Your task to perform on an android device: Do I have any events today? Image 0: 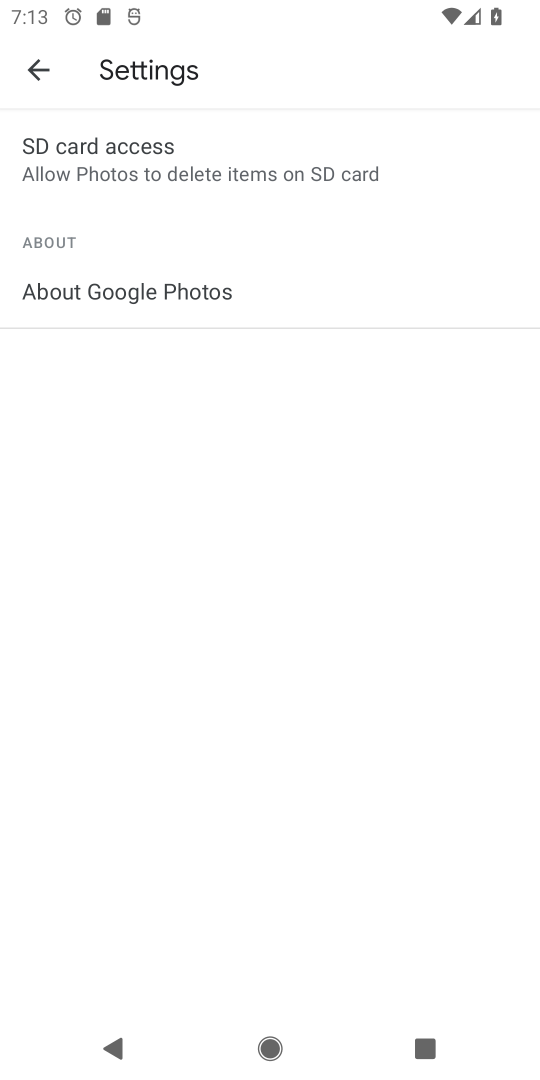
Step 0: press home button
Your task to perform on an android device: Do I have any events today? Image 1: 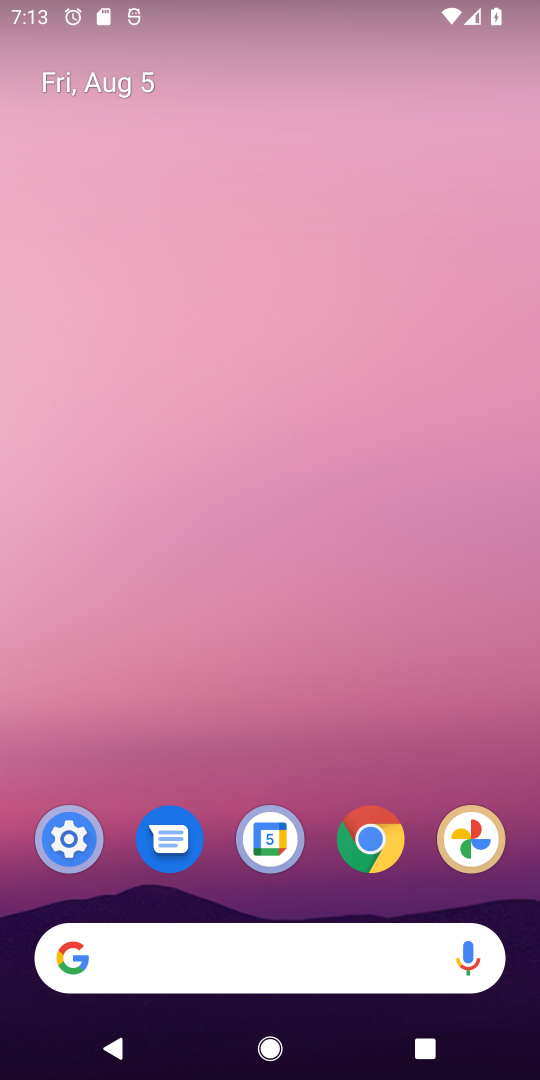
Step 1: drag from (264, 745) to (213, 231)
Your task to perform on an android device: Do I have any events today? Image 2: 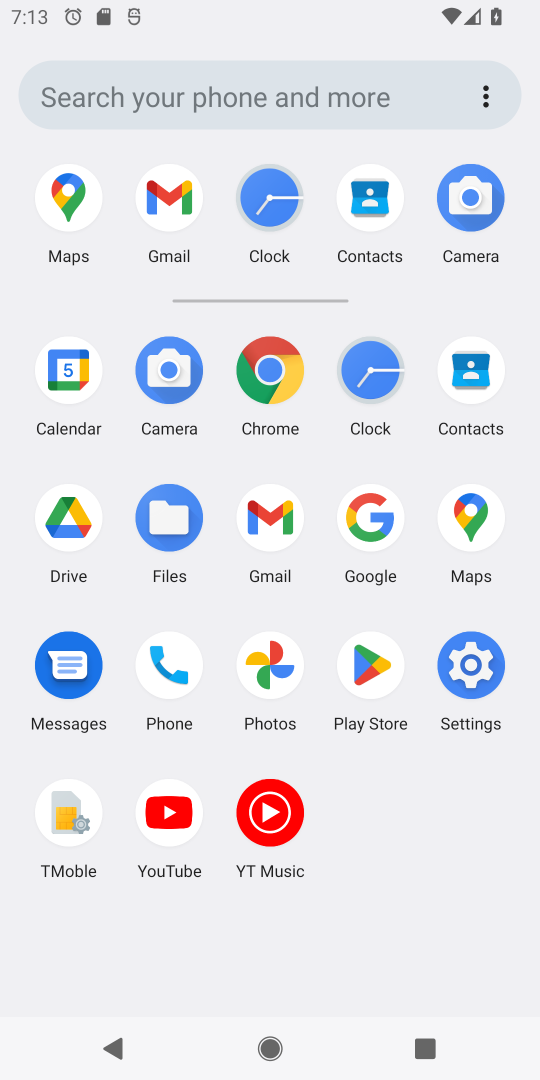
Step 2: click (79, 395)
Your task to perform on an android device: Do I have any events today? Image 3: 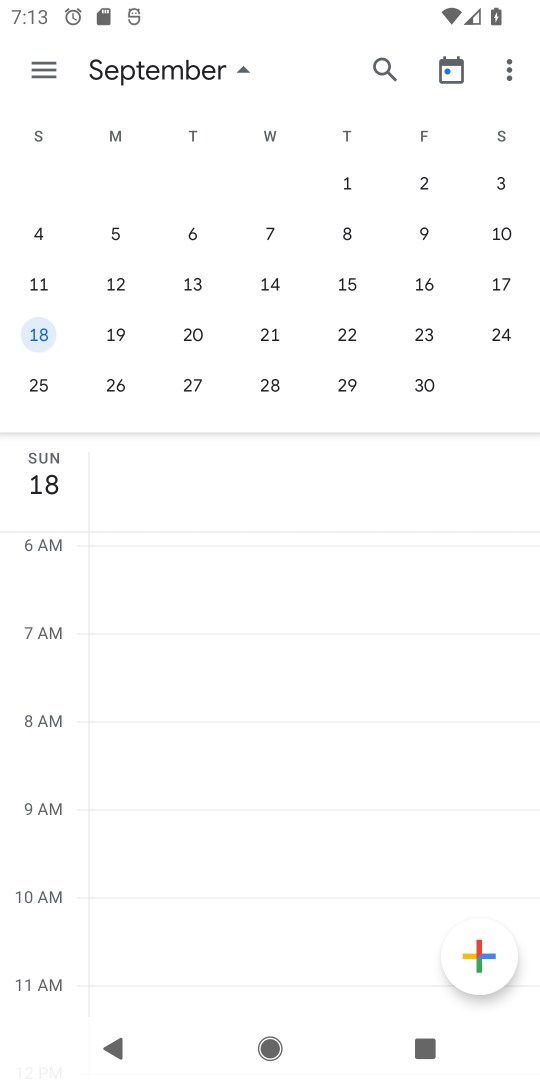
Step 3: drag from (75, 260) to (510, 270)
Your task to perform on an android device: Do I have any events today? Image 4: 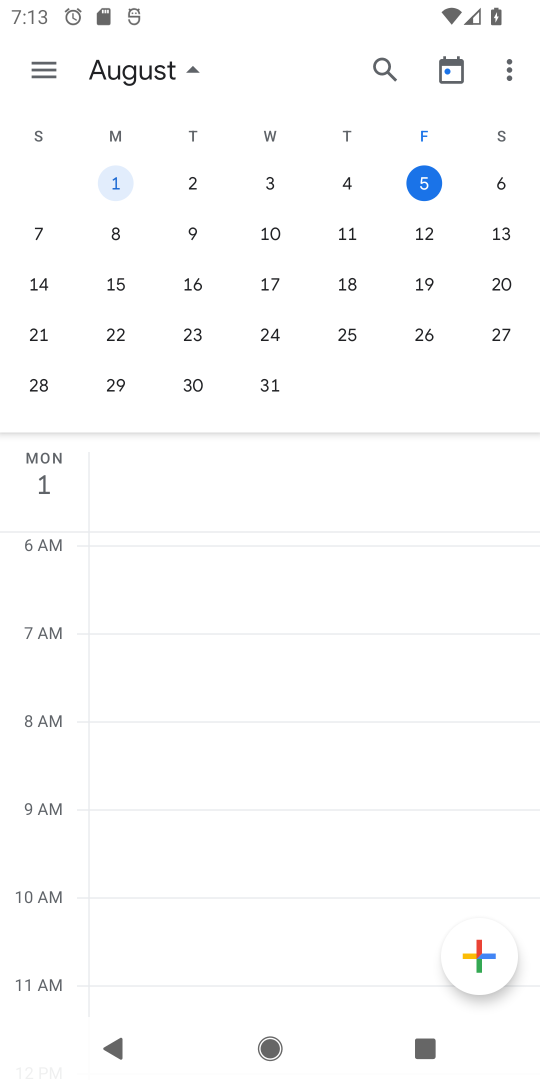
Step 4: click (437, 179)
Your task to perform on an android device: Do I have any events today? Image 5: 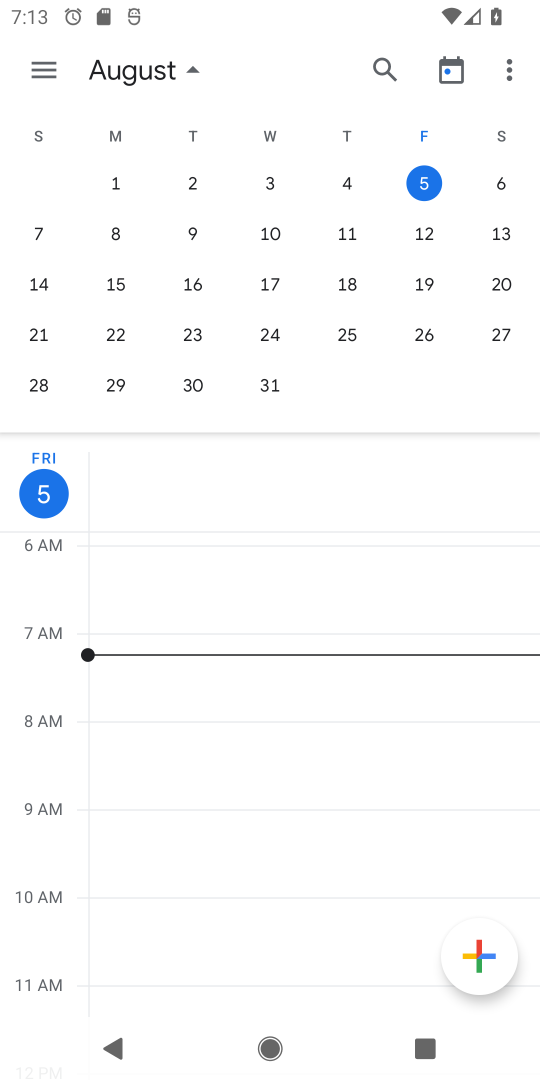
Step 5: task complete